Your task to perform on an android device: Go to display settings Image 0: 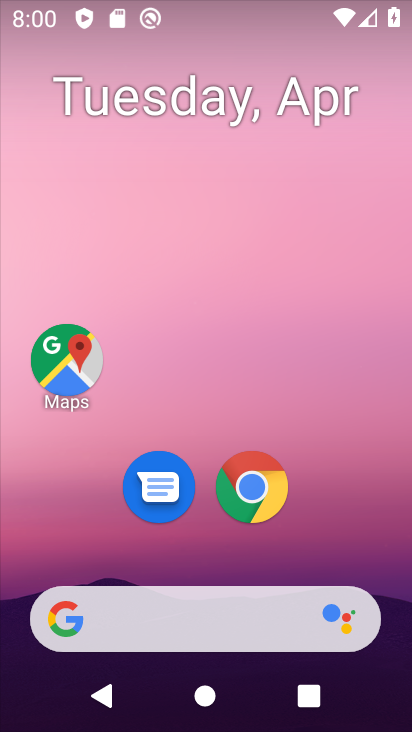
Step 0: drag from (156, 493) to (163, 310)
Your task to perform on an android device: Go to display settings Image 1: 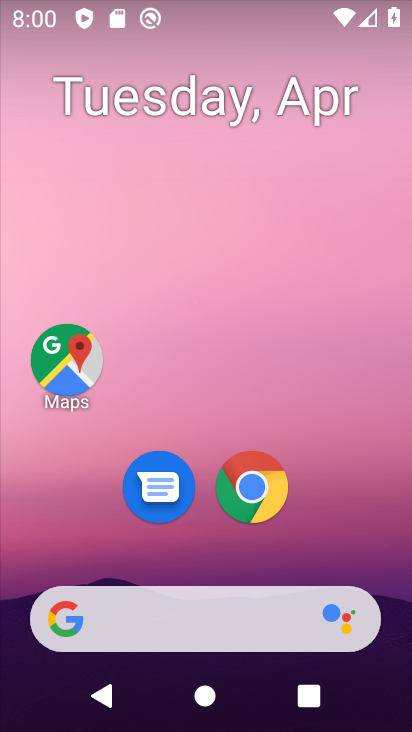
Step 1: drag from (265, 548) to (289, 242)
Your task to perform on an android device: Go to display settings Image 2: 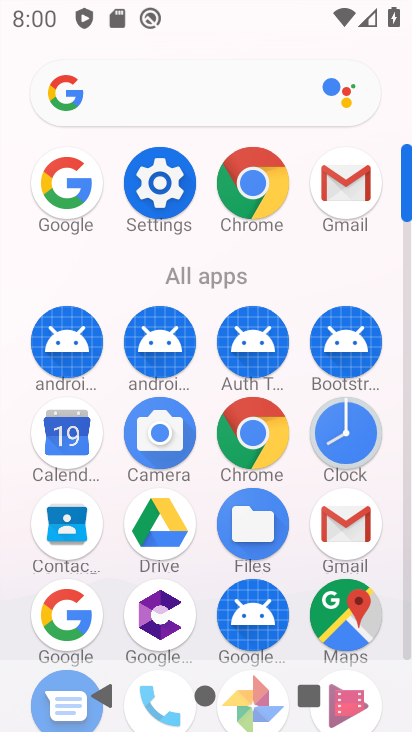
Step 2: click (155, 180)
Your task to perform on an android device: Go to display settings Image 3: 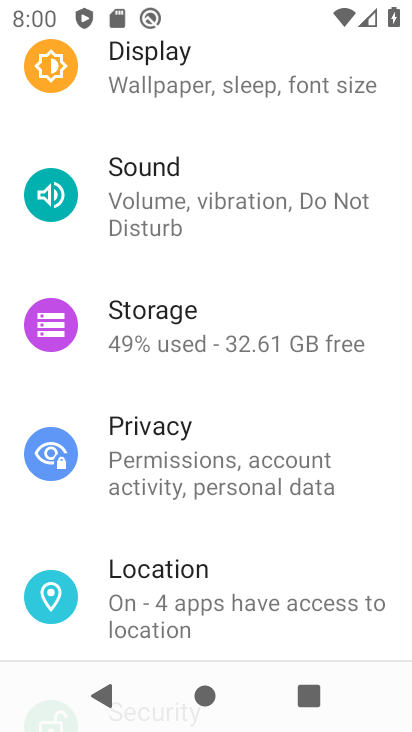
Step 3: click (146, 73)
Your task to perform on an android device: Go to display settings Image 4: 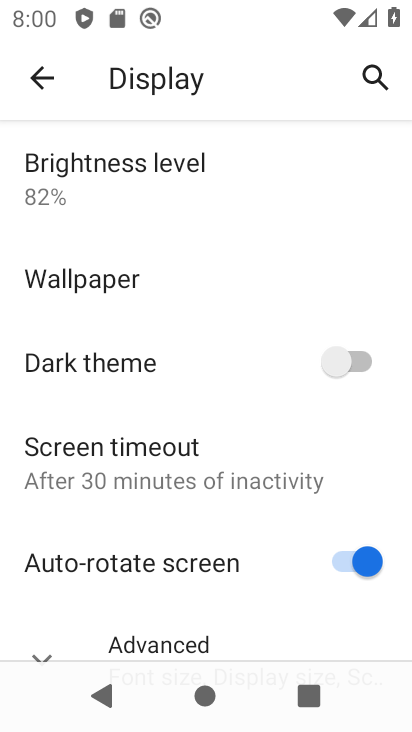
Step 4: click (188, 225)
Your task to perform on an android device: Go to display settings Image 5: 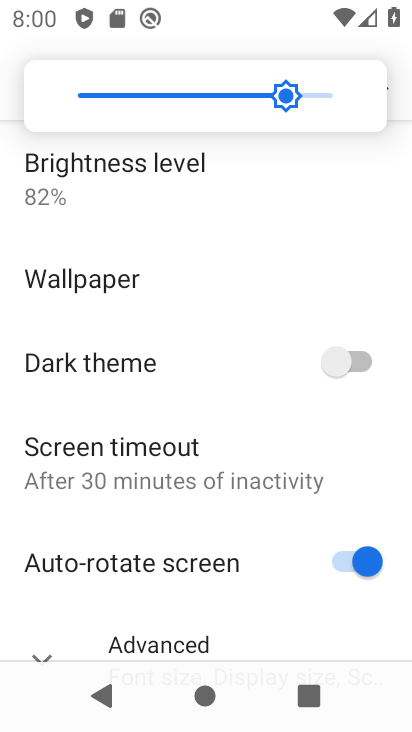
Step 5: click (188, 642)
Your task to perform on an android device: Go to display settings Image 6: 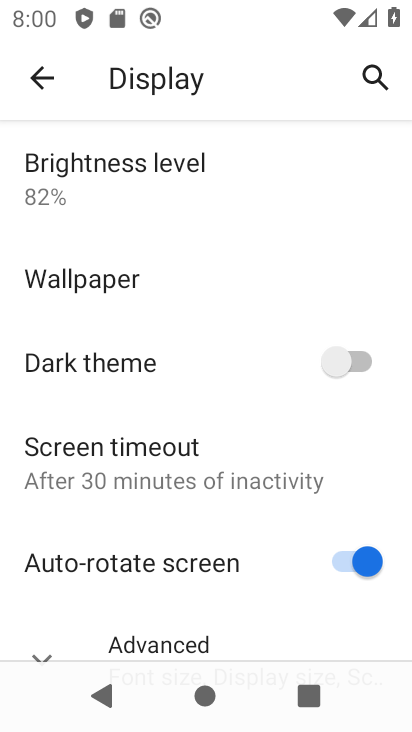
Step 6: click (42, 651)
Your task to perform on an android device: Go to display settings Image 7: 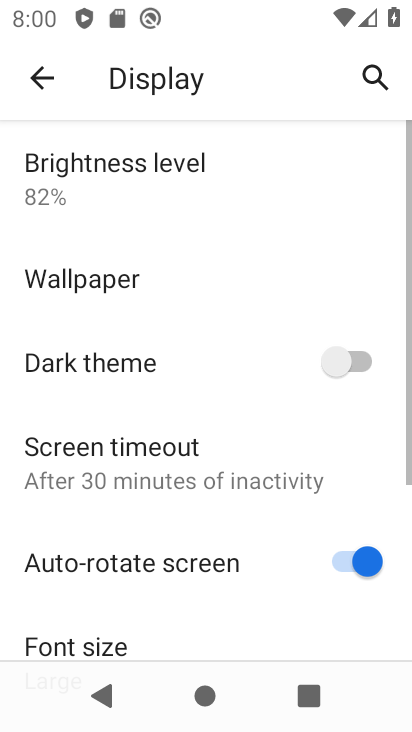
Step 7: task complete